Your task to perform on an android device: Open maps Image 0: 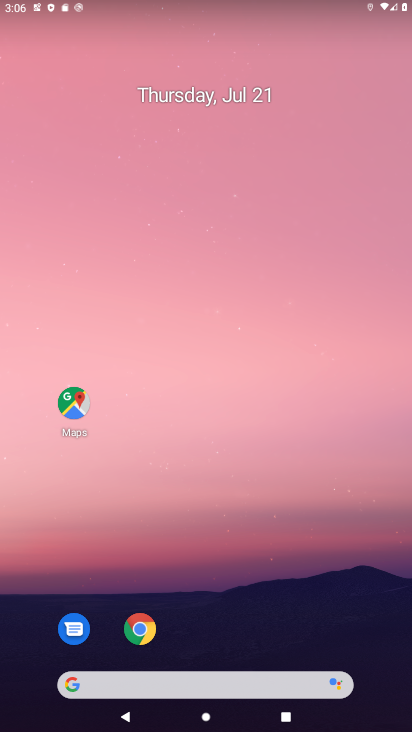
Step 0: click (75, 414)
Your task to perform on an android device: Open maps Image 1: 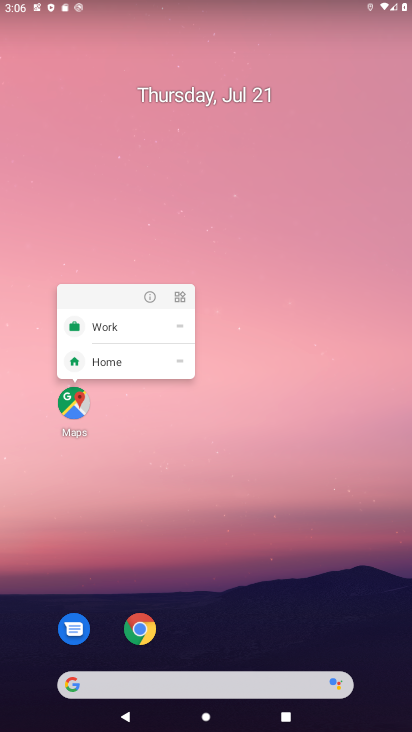
Step 1: click (68, 412)
Your task to perform on an android device: Open maps Image 2: 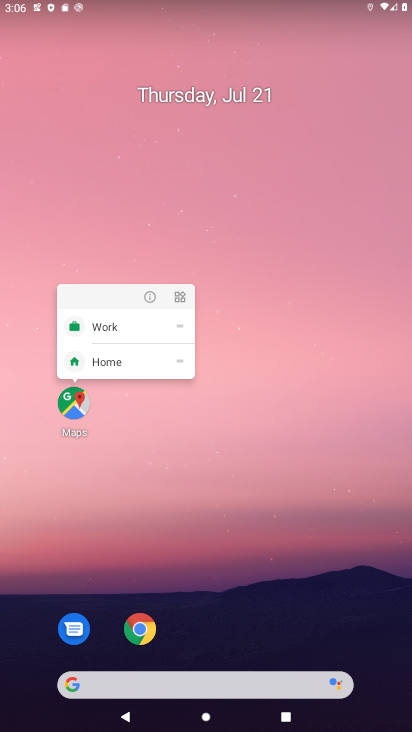
Step 2: click (70, 412)
Your task to perform on an android device: Open maps Image 3: 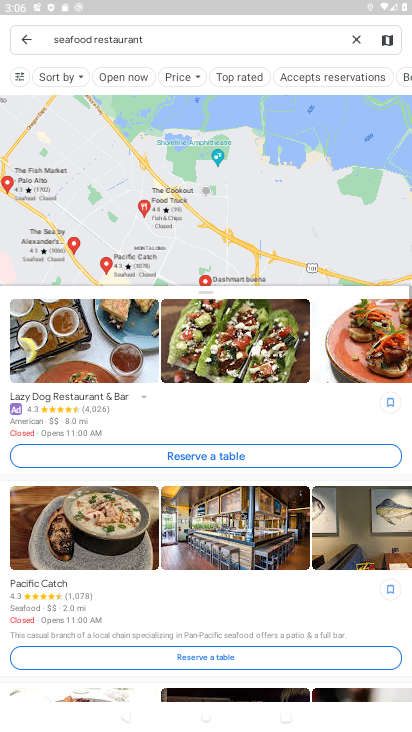
Step 3: click (27, 40)
Your task to perform on an android device: Open maps Image 4: 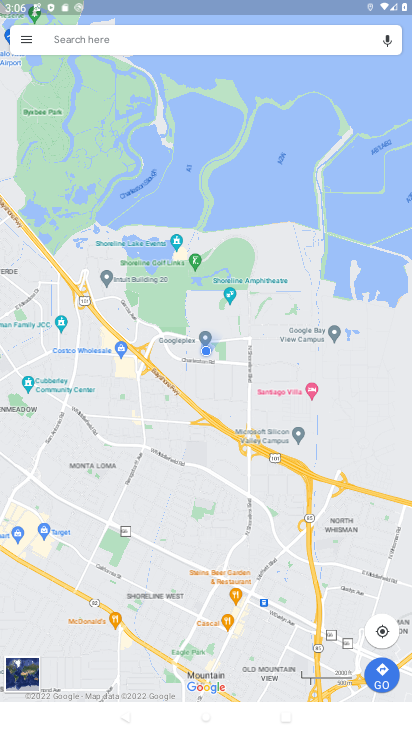
Step 4: task complete